Your task to perform on an android device: Go to Reddit.com Image 0: 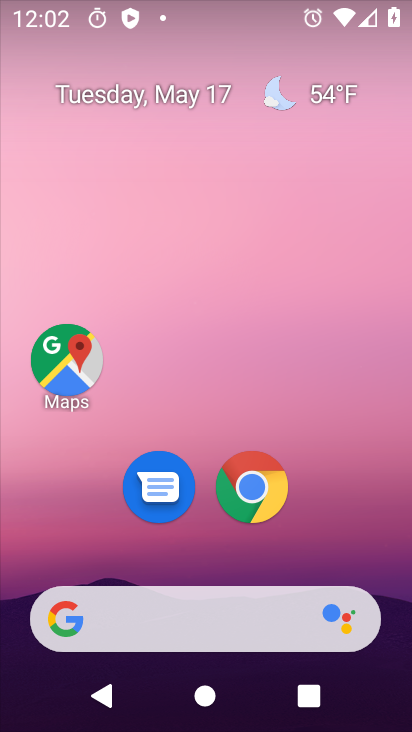
Step 0: click (251, 494)
Your task to perform on an android device: Go to Reddit.com Image 1: 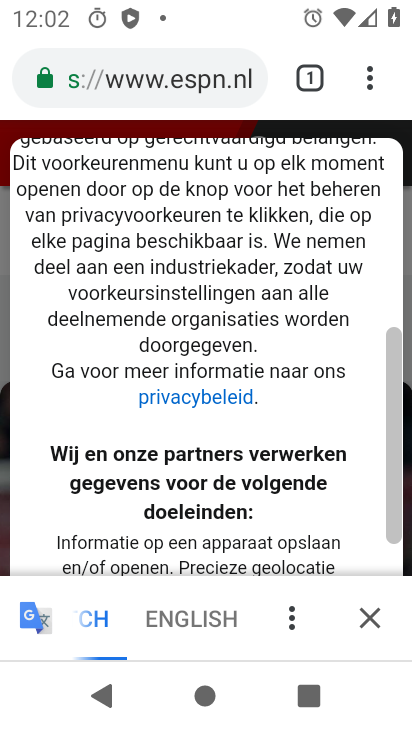
Step 1: click (311, 79)
Your task to perform on an android device: Go to Reddit.com Image 2: 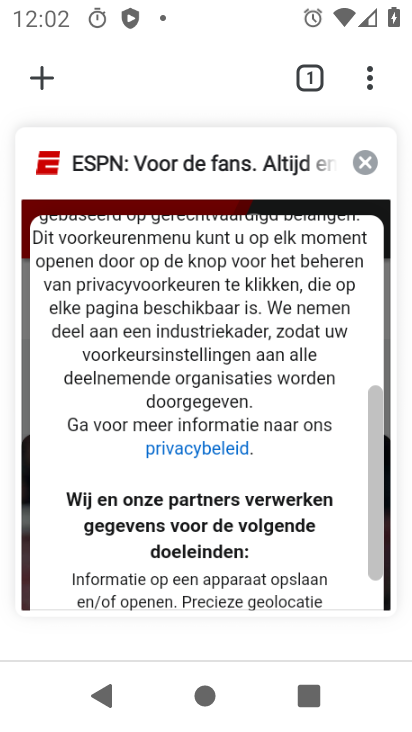
Step 2: click (43, 80)
Your task to perform on an android device: Go to Reddit.com Image 3: 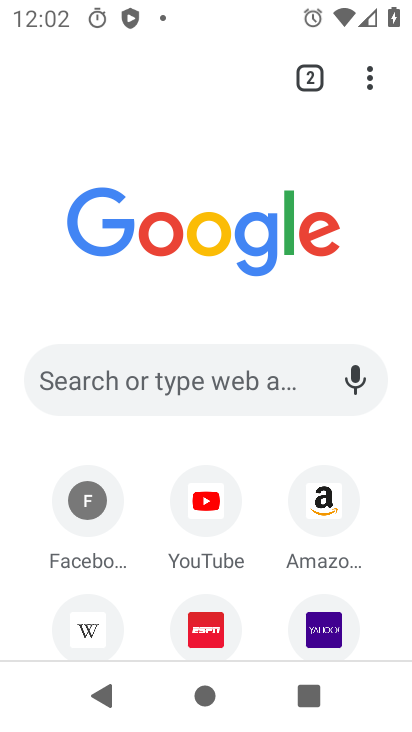
Step 3: click (124, 353)
Your task to perform on an android device: Go to Reddit.com Image 4: 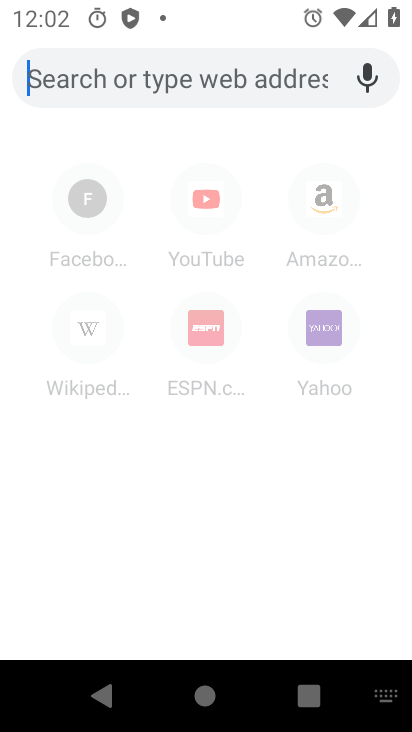
Step 4: type "reddit.com"
Your task to perform on an android device: Go to Reddit.com Image 5: 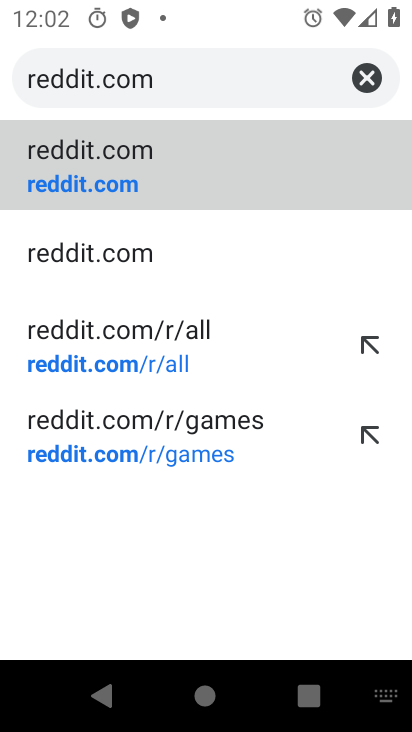
Step 5: click (128, 159)
Your task to perform on an android device: Go to Reddit.com Image 6: 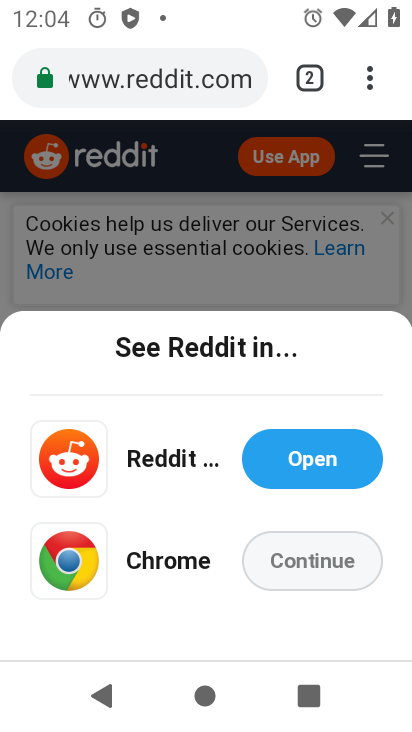
Step 6: task complete